Your task to perform on an android device: turn off notifications in google photos Image 0: 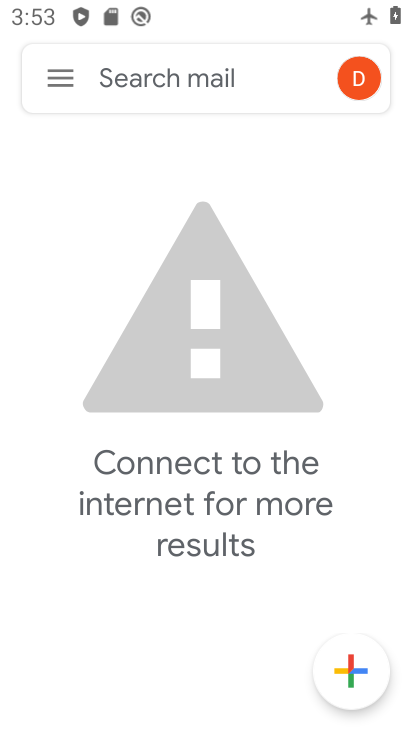
Step 0: press home button
Your task to perform on an android device: turn off notifications in google photos Image 1: 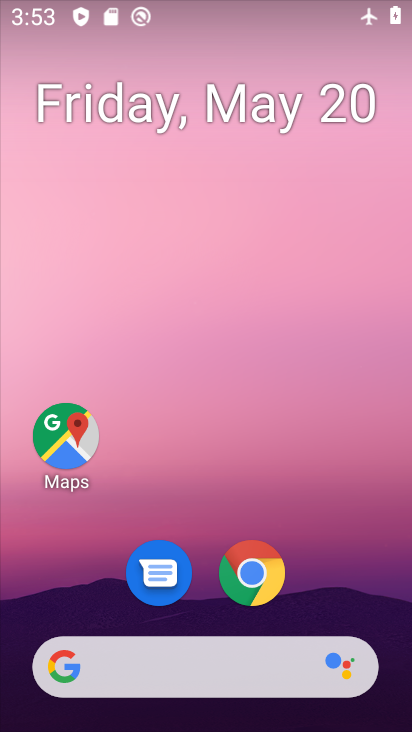
Step 1: drag from (383, 585) to (235, 276)
Your task to perform on an android device: turn off notifications in google photos Image 2: 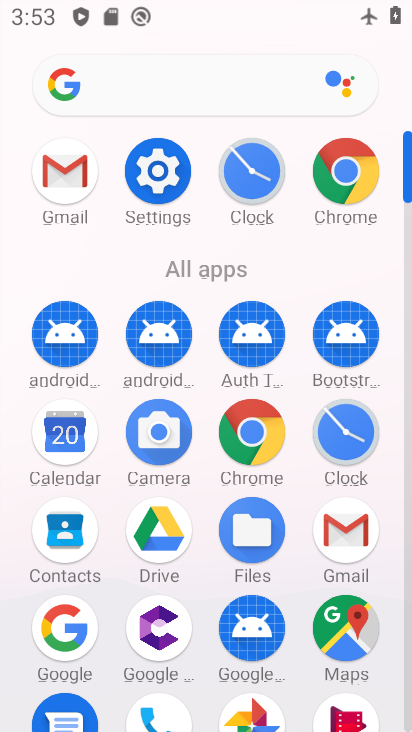
Step 2: click (259, 718)
Your task to perform on an android device: turn off notifications in google photos Image 3: 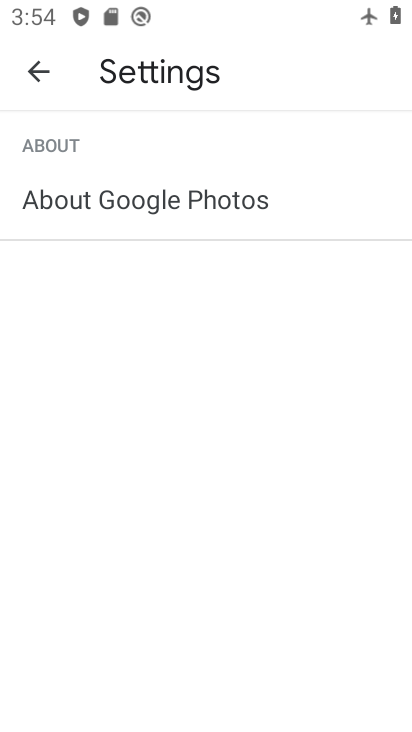
Step 3: click (39, 55)
Your task to perform on an android device: turn off notifications in google photos Image 4: 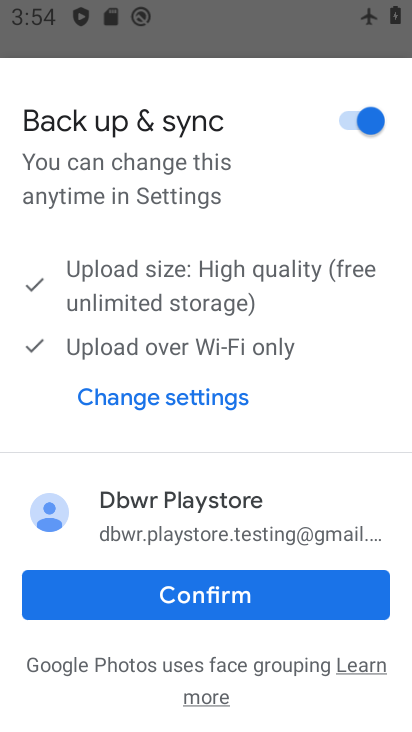
Step 4: click (190, 598)
Your task to perform on an android device: turn off notifications in google photos Image 5: 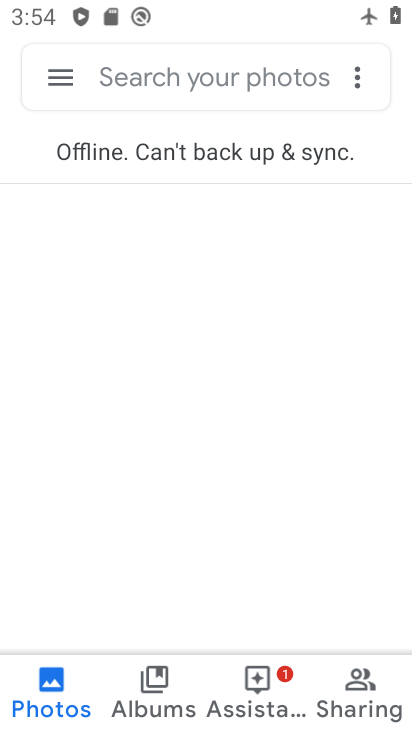
Step 5: click (67, 88)
Your task to perform on an android device: turn off notifications in google photos Image 6: 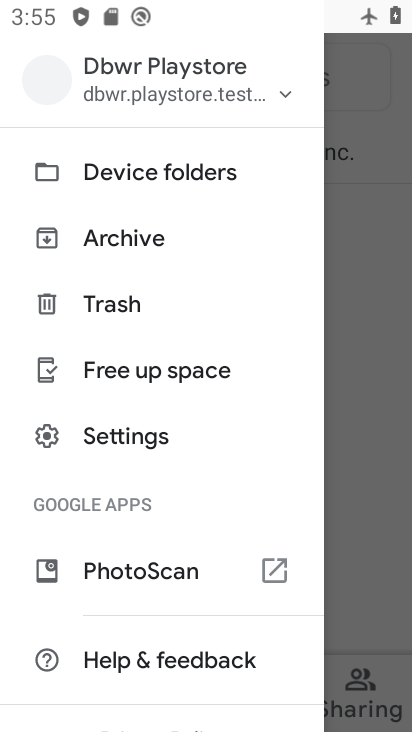
Step 6: click (172, 442)
Your task to perform on an android device: turn off notifications in google photos Image 7: 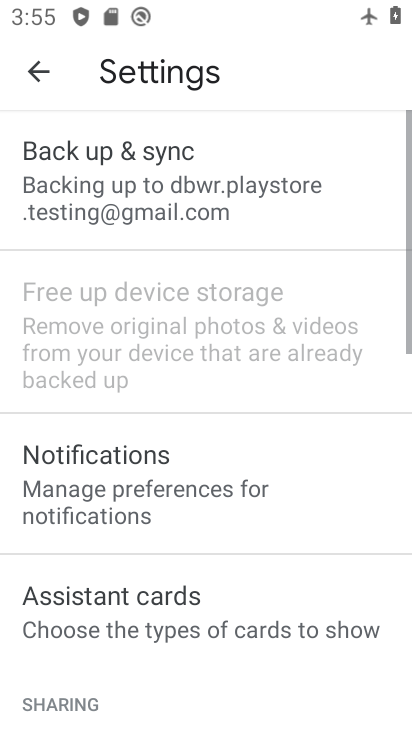
Step 7: click (172, 442)
Your task to perform on an android device: turn off notifications in google photos Image 8: 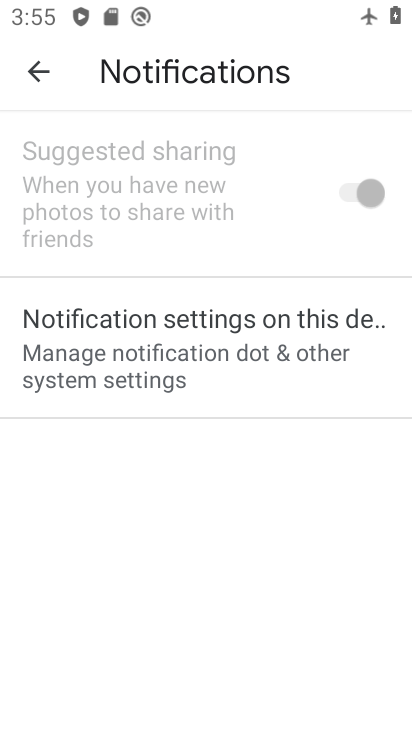
Step 8: click (220, 359)
Your task to perform on an android device: turn off notifications in google photos Image 9: 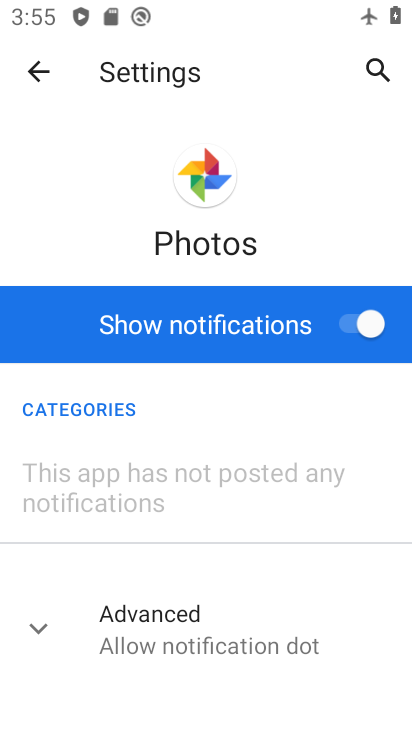
Step 9: click (343, 325)
Your task to perform on an android device: turn off notifications in google photos Image 10: 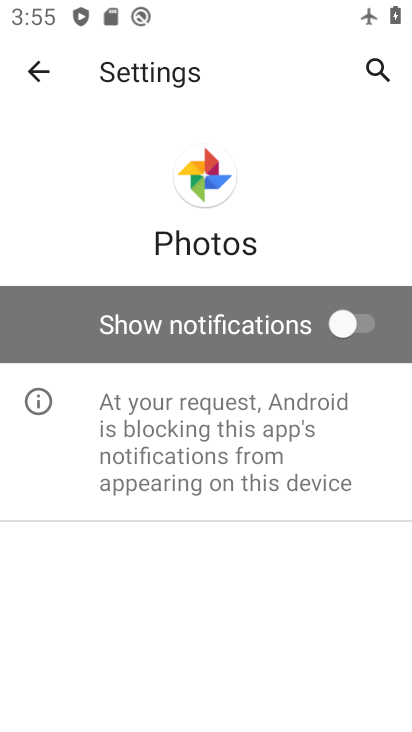
Step 10: task complete